Your task to perform on an android device: Open network settings Image 0: 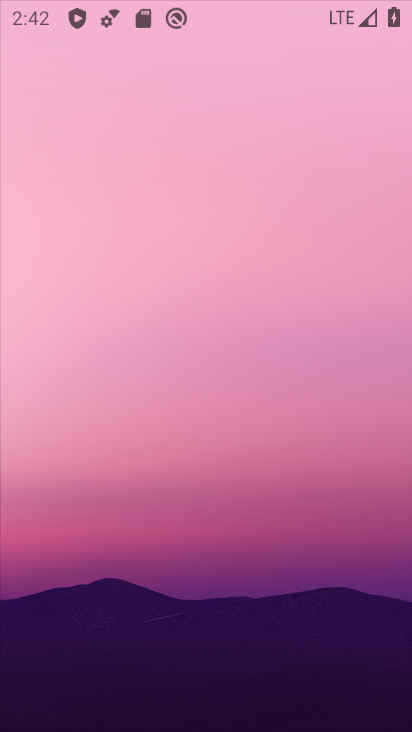
Step 0: drag from (377, 591) to (385, 375)
Your task to perform on an android device: Open network settings Image 1: 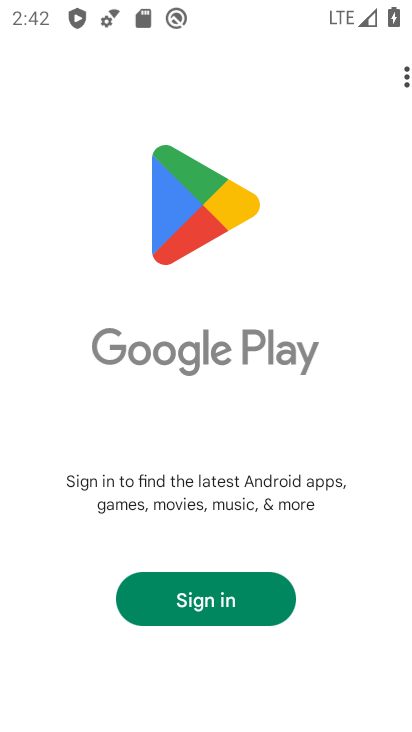
Step 1: press home button
Your task to perform on an android device: Open network settings Image 2: 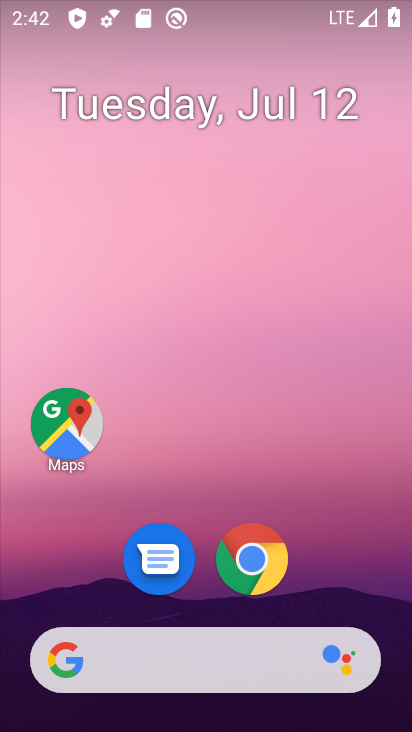
Step 2: drag from (366, 572) to (379, 153)
Your task to perform on an android device: Open network settings Image 3: 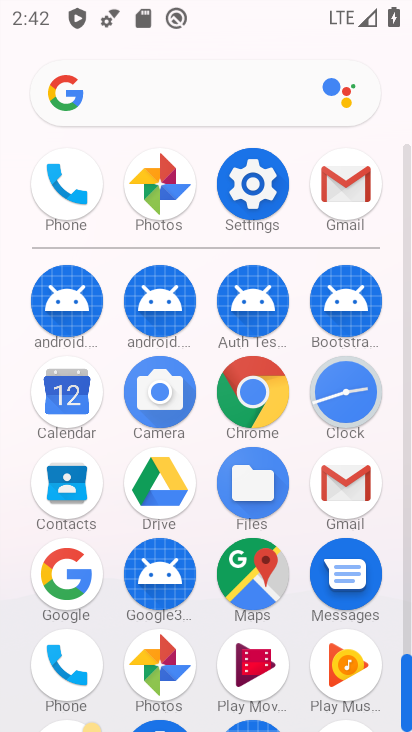
Step 3: click (273, 208)
Your task to perform on an android device: Open network settings Image 4: 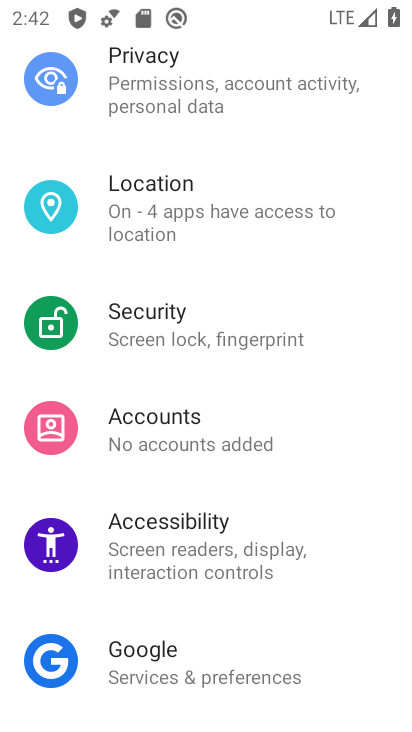
Step 4: drag from (345, 444) to (352, 337)
Your task to perform on an android device: Open network settings Image 5: 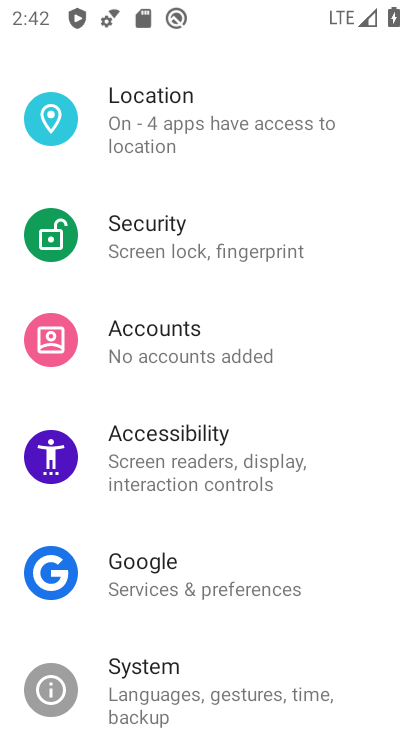
Step 5: drag from (335, 437) to (334, 310)
Your task to perform on an android device: Open network settings Image 6: 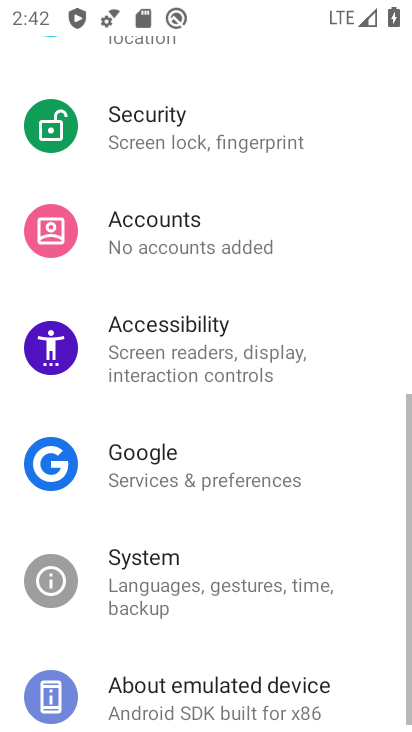
Step 6: drag from (357, 269) to (360, 451)
Your task to perform on an android device: Open network settings Image 7: 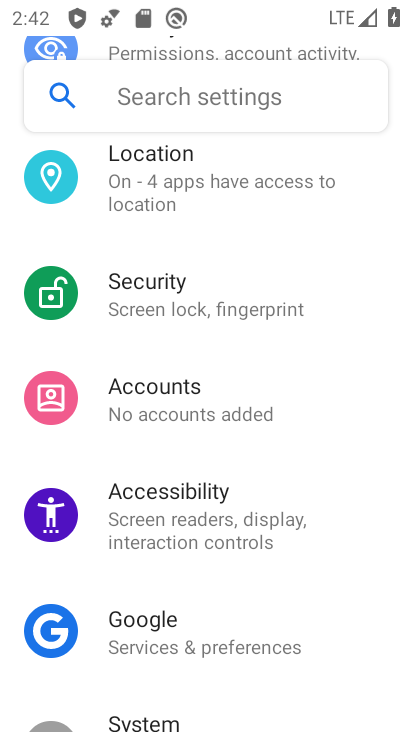
Step 7: drag from (360, 333) to (356, 428)
Your task to perform on an android device: Open network settings Image 8: 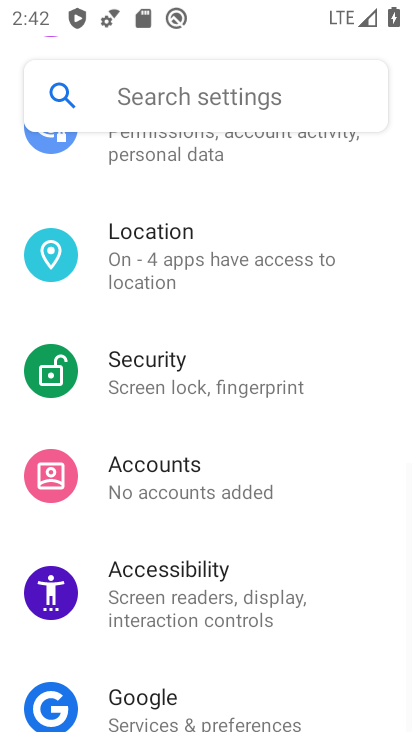
Step 8: drag from (360, 310) to (362, 423)
Your task to perform on an android device: Open network settings Image 9: 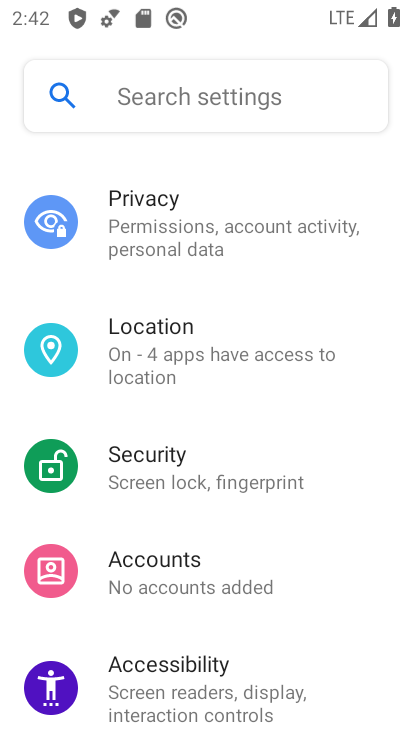
Step 9: drag from (362, 314) to (372, 408)
Your task to perform on an android device: Open network settings Image 10: 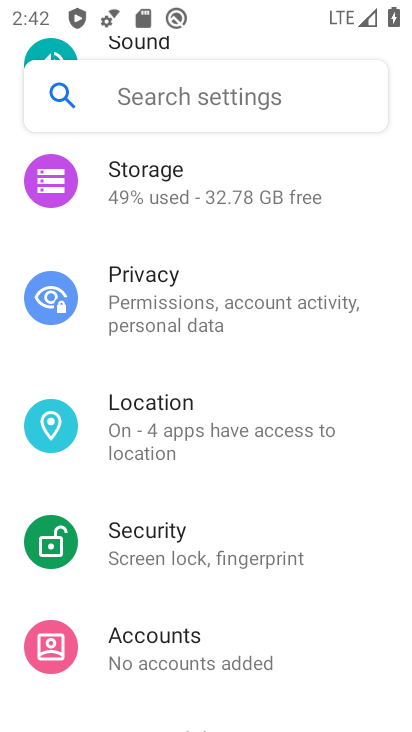
Step 10: drag from (375, 308) to (378, 416)
Your task to perform on an android device: Open network settings Image 11: 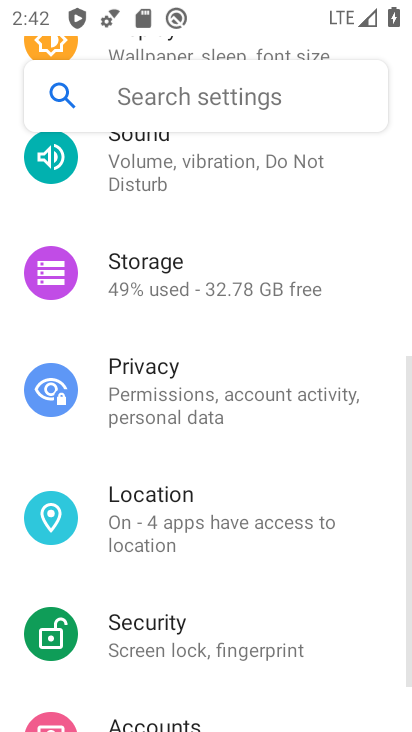
Step 11: drag from (373, 341) to (375, 424)
Your task to perform on an android device: Open network settings Image 12: 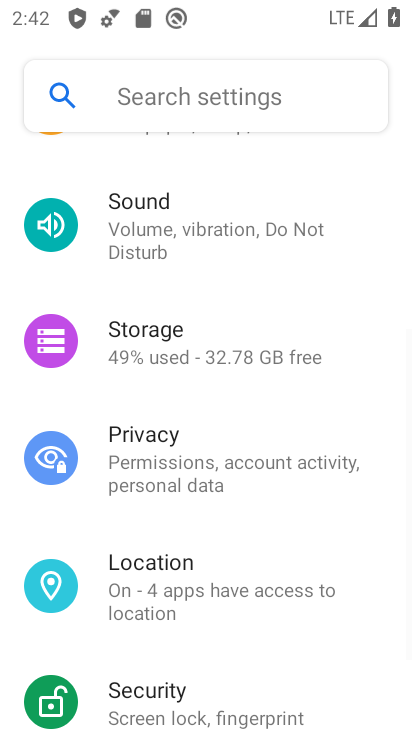
Step 12: drag from (373, 350) to (374, 430)
Your task to perform on an android device: Open network settings Image 13: 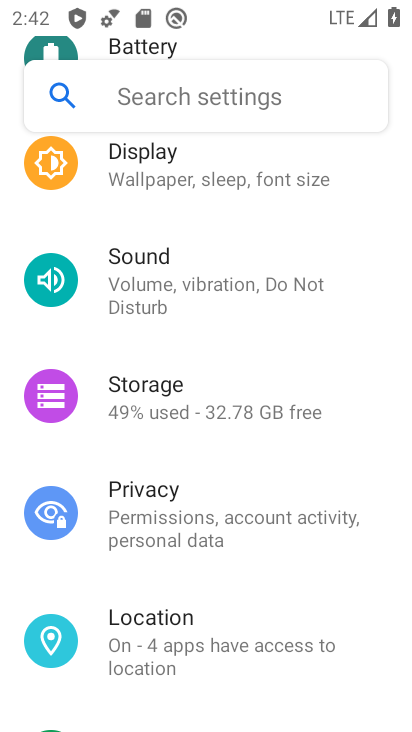
Step 13: drag from (365, 343) to (367, 431)
Your task to perform on an android device: Open network settings Image 14: 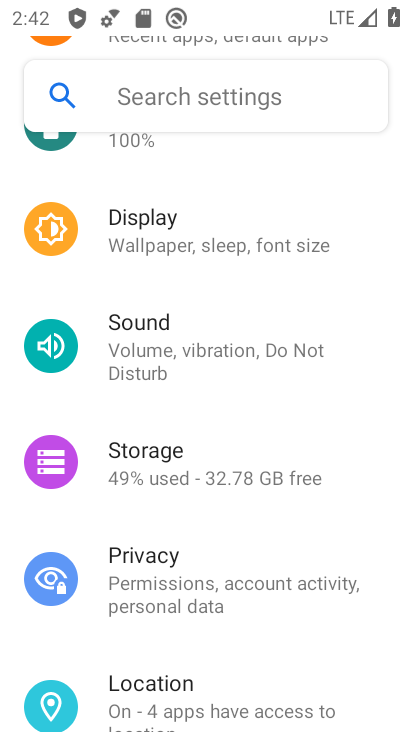
Step 14: drag from (358, 369) to (362, 463)
Your task to perform on an android device: Open network settings Image 15: 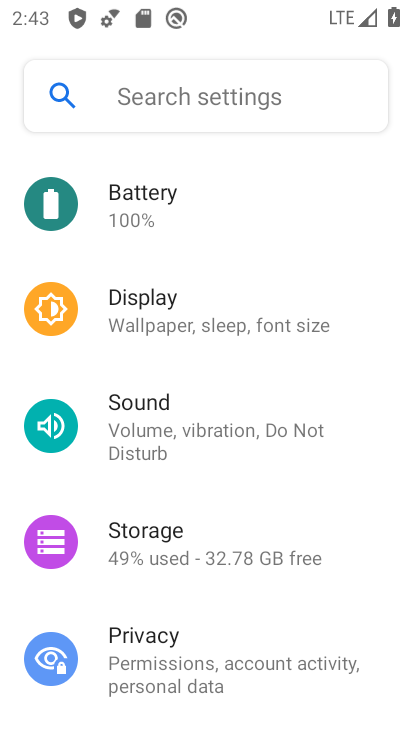
Step 15: drag from (357, 308) to (356, 443)
Your task to perform on an android device: Open network settings Image 16: 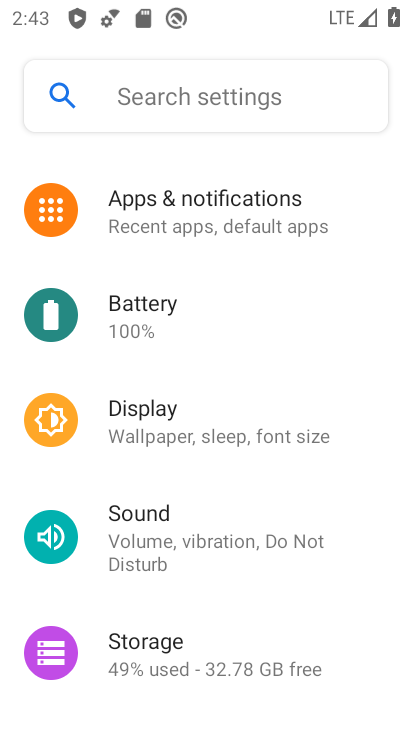
Step 16: drag from (347, 297) to (350, 392)
Your task to perform on an android device: Open network settings Image 17: 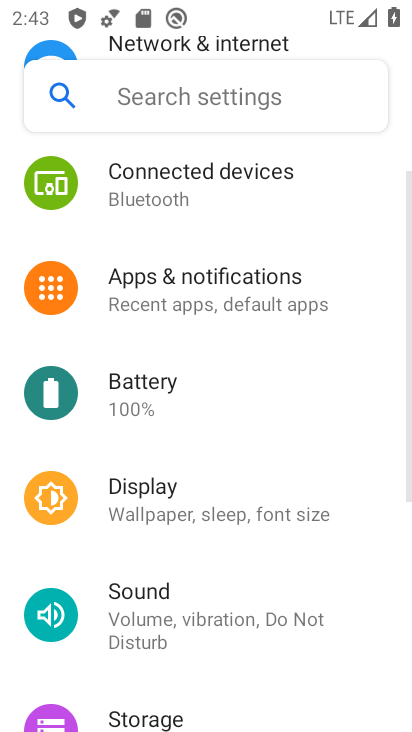
Step 17: drag from (350, 287) to (351, 367)
Your task to perform on an android device: Open network settings Image 18: 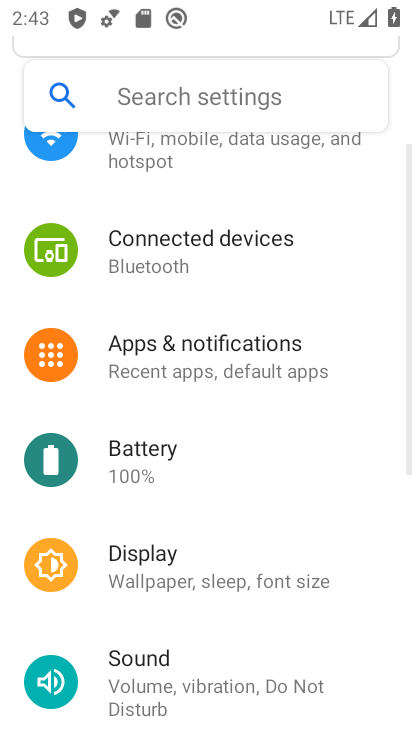
Step 18: drag from (346, 294) to (347, 398)
Your task to perform on an android device: Open network settings Image 19: 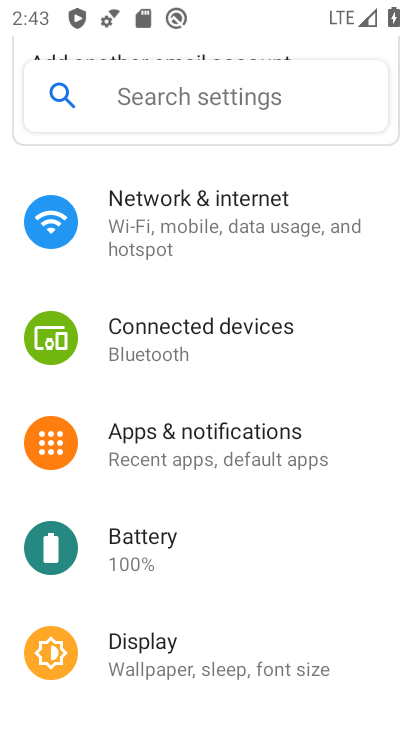
Step 19: drag from (352, 330) to (350, 398)
Your task to perform on an android device: Open network settings Image 20: 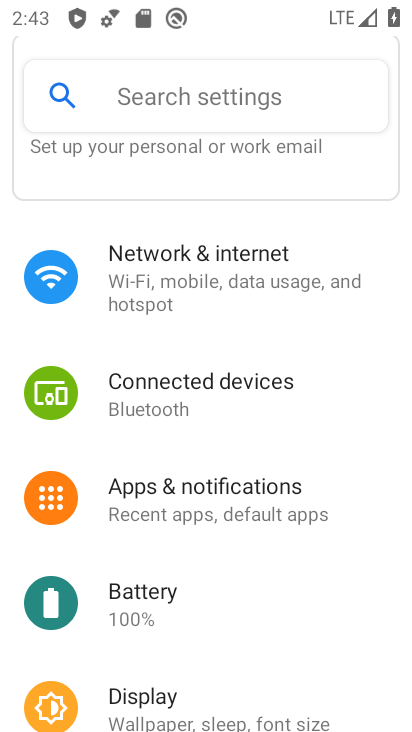
Step 20: click (316, 278)
Your task to perform on an android device: Open network settings Image 21: 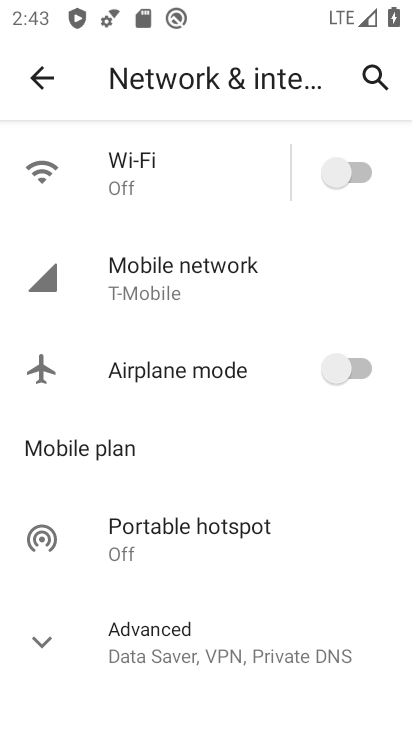
Step 21: task complete